Your task to perform on an android device: turn on sleep mode Image 0: 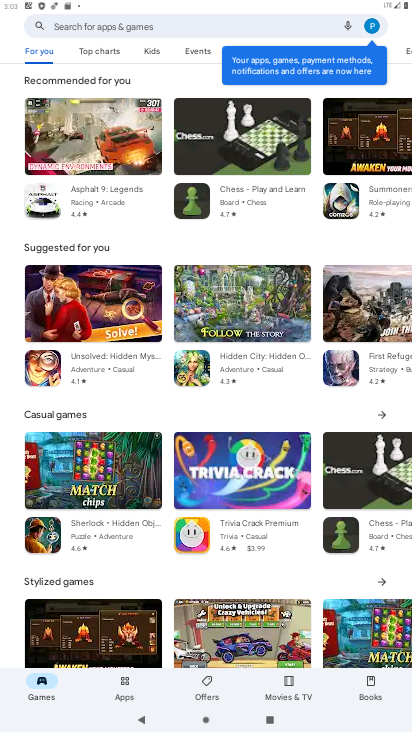
Step 0: press home button
Your task to perform on an android device: turn on sleep mode Image 1: 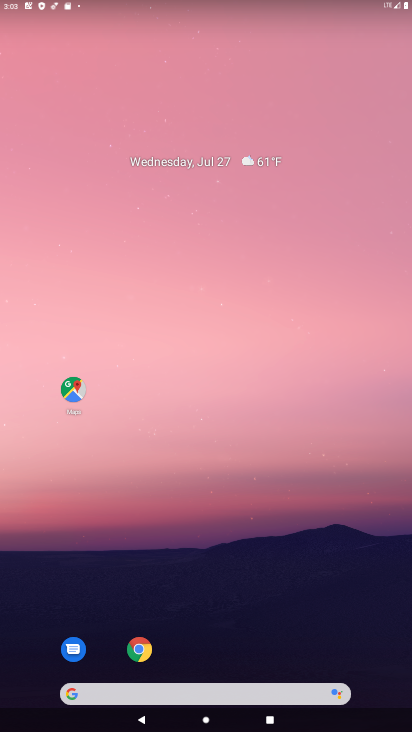
Step 1: drag from (206, 20) to (172, 155)
Your task to perform on an android device: turn on sleep mode Image 2: 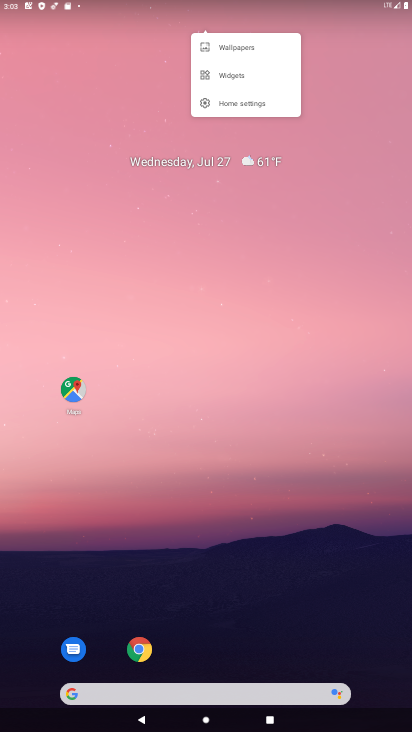
Step 2: click (205, 651)
Your task to perform on an android device: turn on sleep mode Image 3: 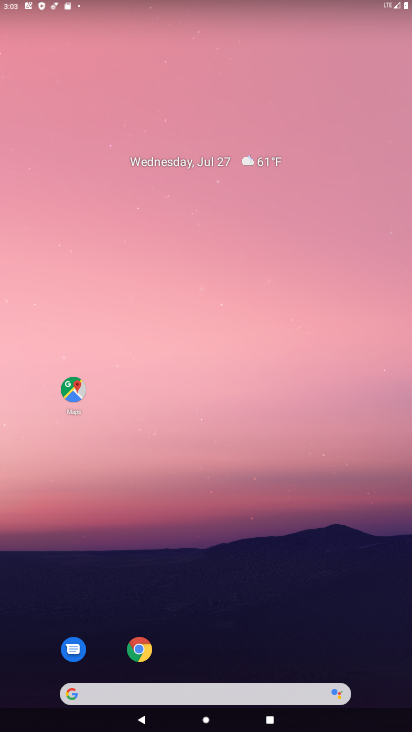
Step 3: click (205, 651)
Your task to perform on an android device: turn on sleep mode Image 4: 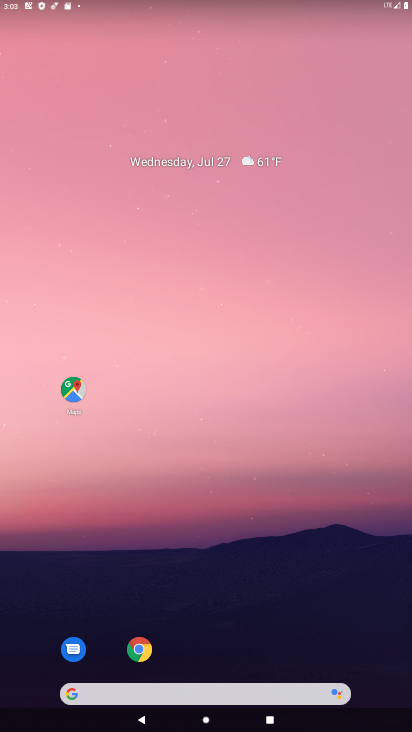
Step 4: drag from (193, 605) to (211, 89)
Your task to perform on an android device: turn on sleep mode Image 5: 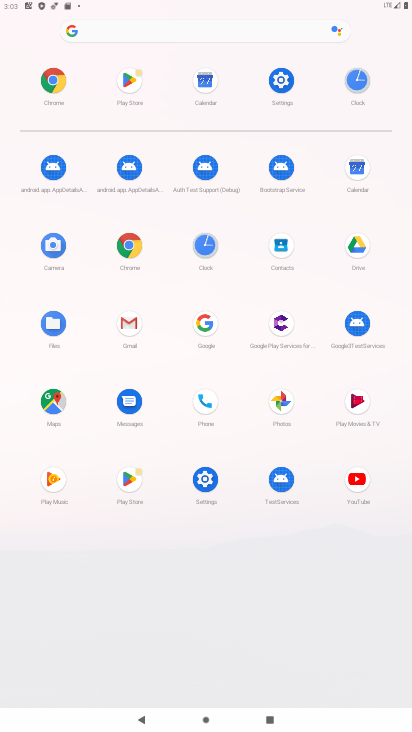
Step 5: click (200, 467)
Your task to perform on an android device: turn on sleep mode Image 6: 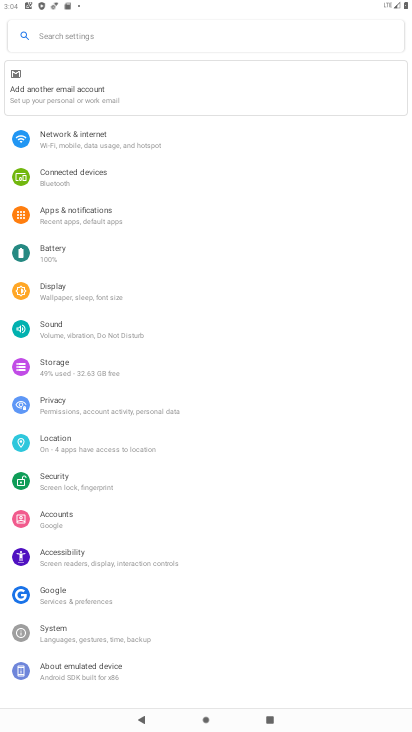
Step 6: task complete